Your task to perform on an android device: What's the weather going to be tomorrow? Image 0: 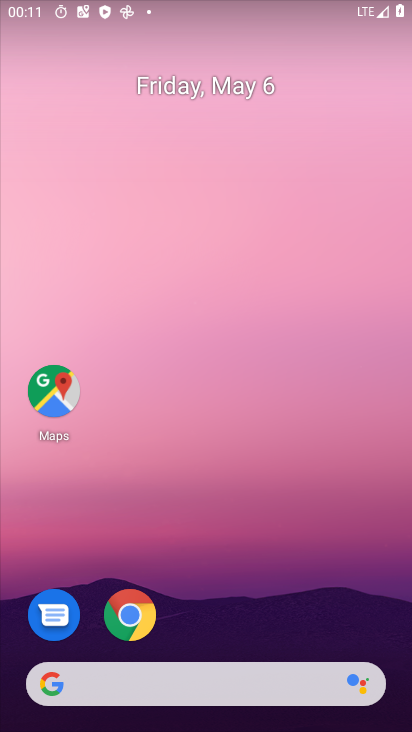
Step 0: drag from (236, 599) to (298, 122)
Your task to perform on an android device: What's the weather going to be tomorrow? Image 1: 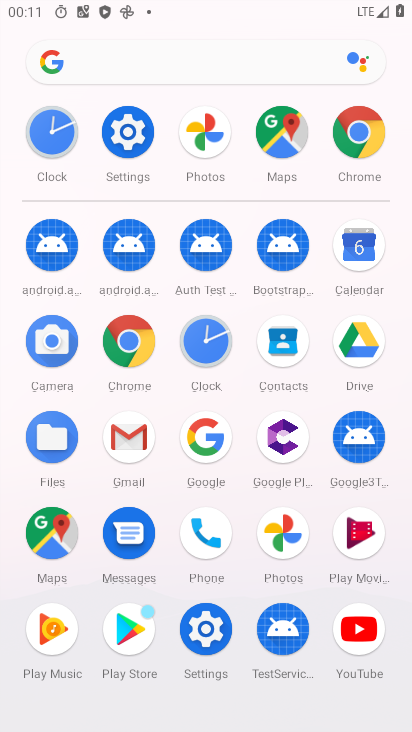
Step 1: click (205, 435)
Your task to perform on an android device: What's the weather going to be tomorrow? Image 2: 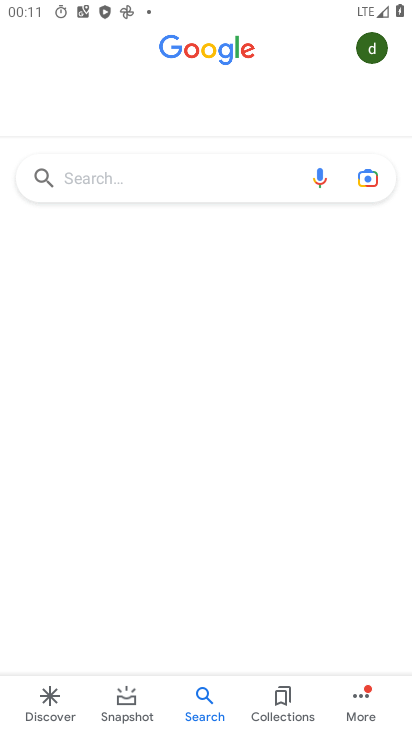
Step 2: click (144, 188)
Your task to perform on an android device: What's the weather going to be tomorrow? Image 3: 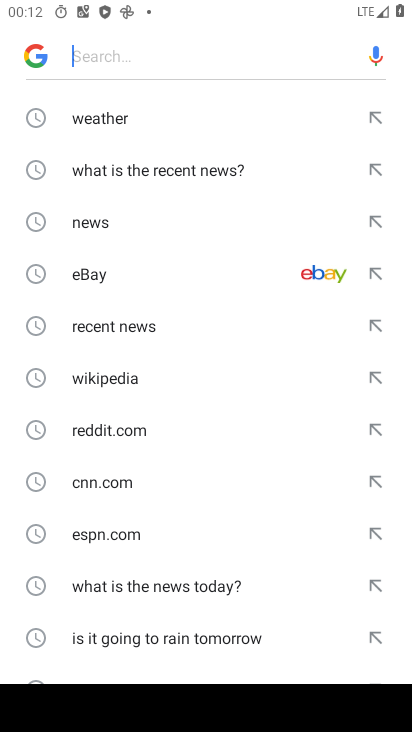
Step 3: type "whats the weather going to be tomorrow"
Your task to perform on an android device: What's the weather going to be tomorrow? Image 4: 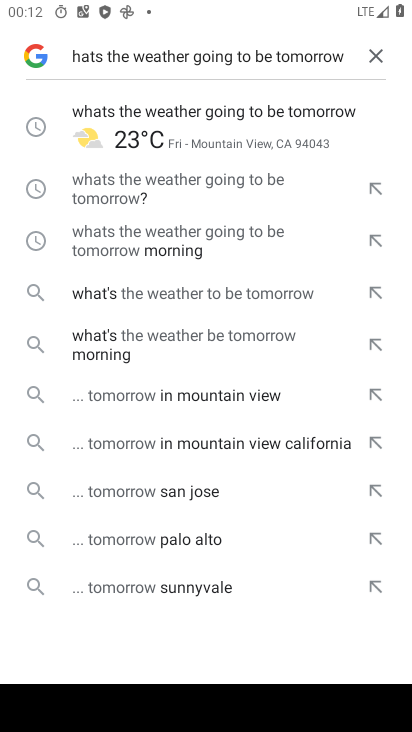
Step 4: click (241, 114)
Your task to perform on an android device: What's the weather going to be tomorrow? Image 5: 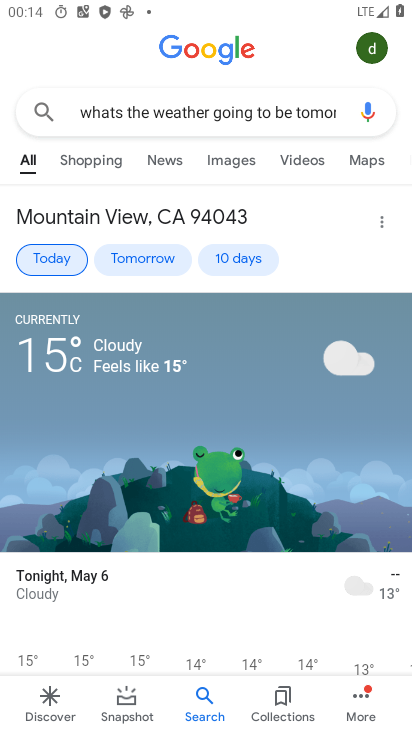
Step 5: task complete